Your task to perform on an android device: Open location settings Image 0: 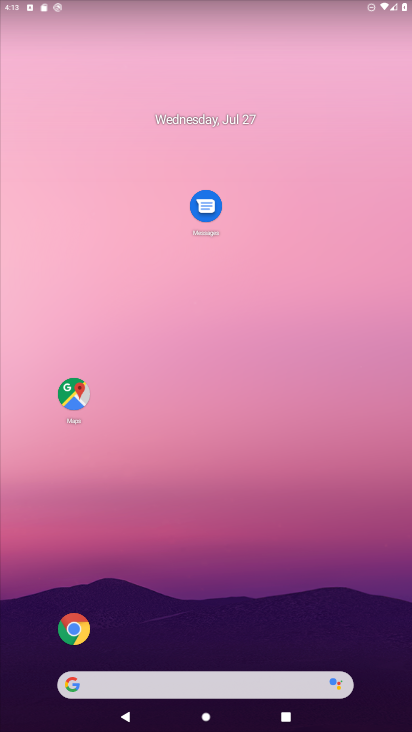
Step 0: drag from (197, 558) to (250, 105)
Your task to perform on an android device: Open location settings Image 1: 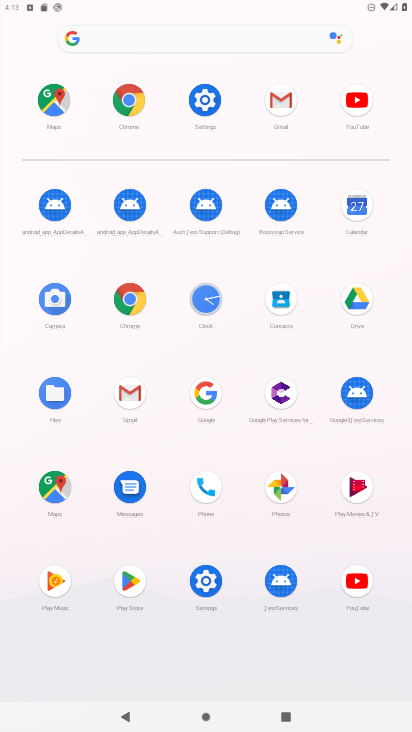
Step 1: click (200, 102)
Your task to perform on an android device: Open location settings Image 2: 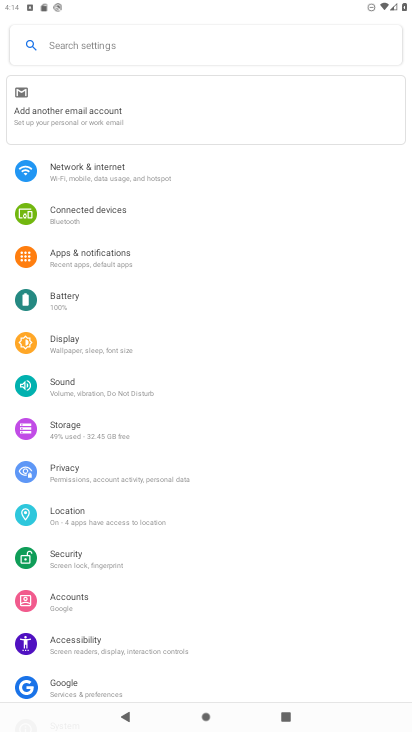
Step 2: click (136, 521)
Your task to perform on an android device: Open location settings Image 3: 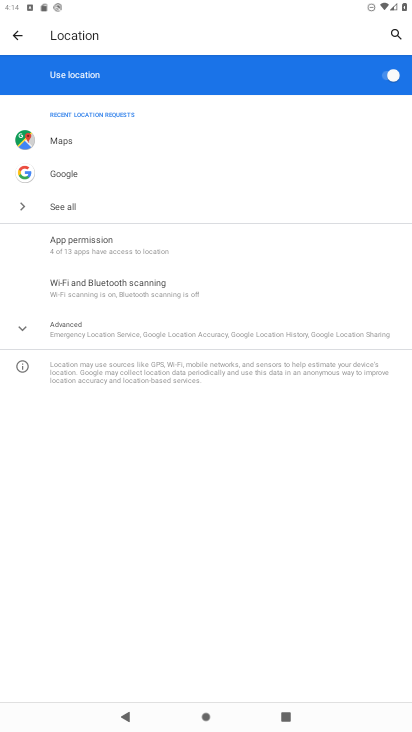
Step 3: task complete